Your task to perform on an android device: Open Google Image 0: 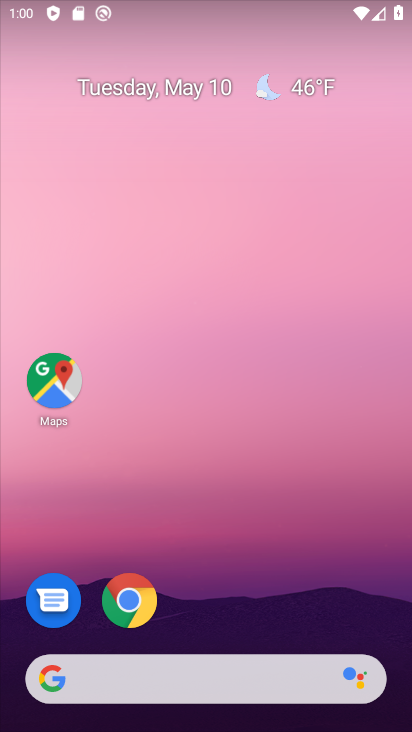
Step 0: press home button
Your task to perform on an android device: Open Google Image 1: 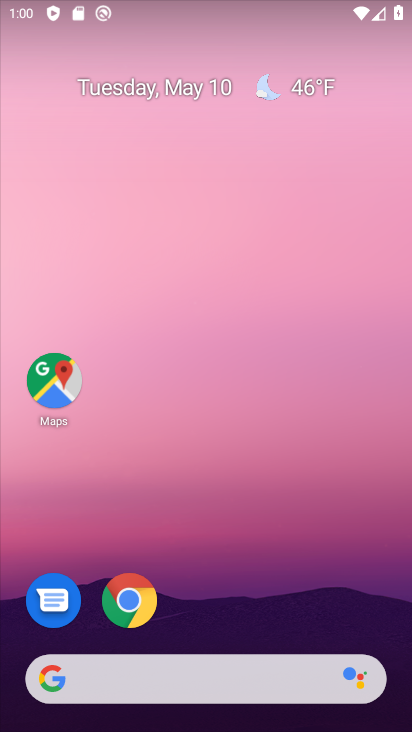
Step 1: drag from (162, 690) to (338, 109)
Your task to perform on an android device: Open Google Image 2: 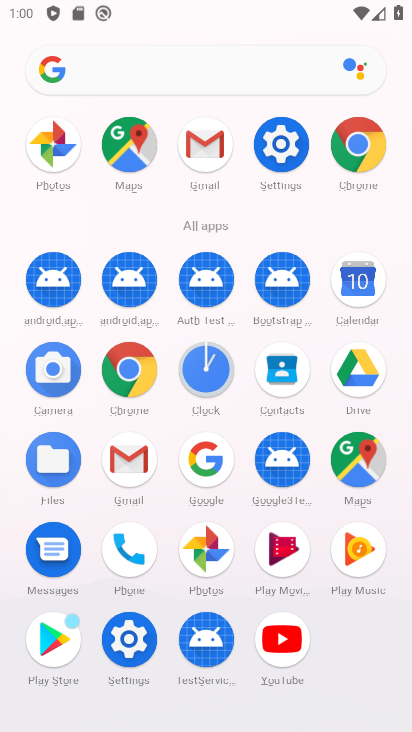
Step 2: click (207, 467)
Your task to perform on an android device: Open Google Image 3: 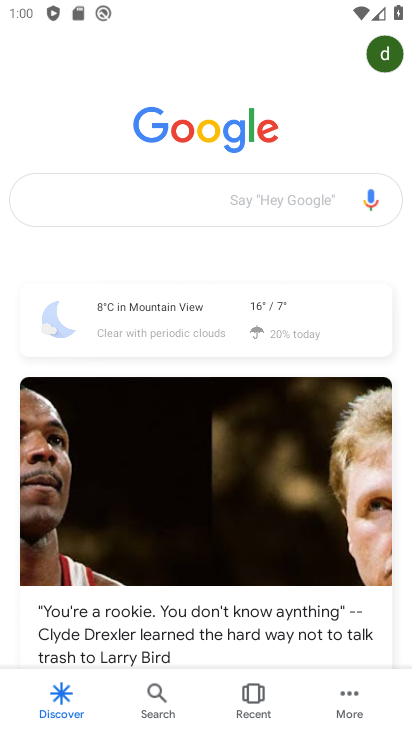
Step 3: task complete